Your task to perform on an android device: turn off location Image 0: 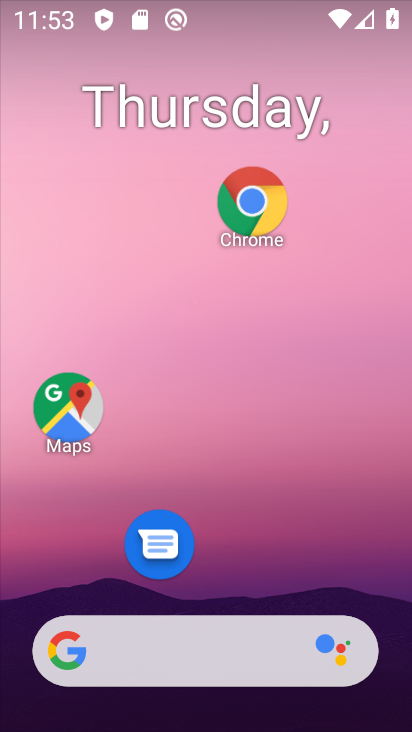
Step 0: drag from (213, 593) to (308, 26)
Your task to perform on an android device: turn off location Image 1: 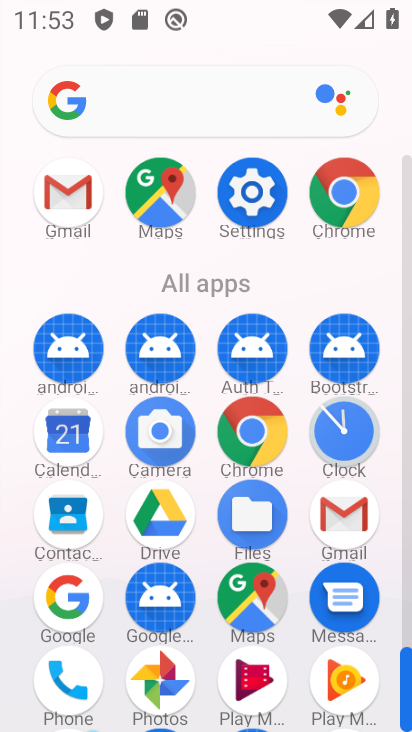
Step 1: click (247, 189)
Your task to perform on an android device: turn off location Image 2: 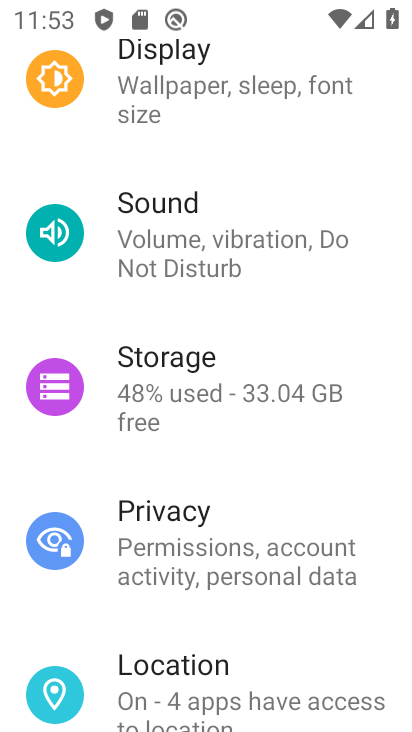
Step 2: drag from (218, 253) to (185, 128)
Your task to perform on an android device: turn off location Image 3: 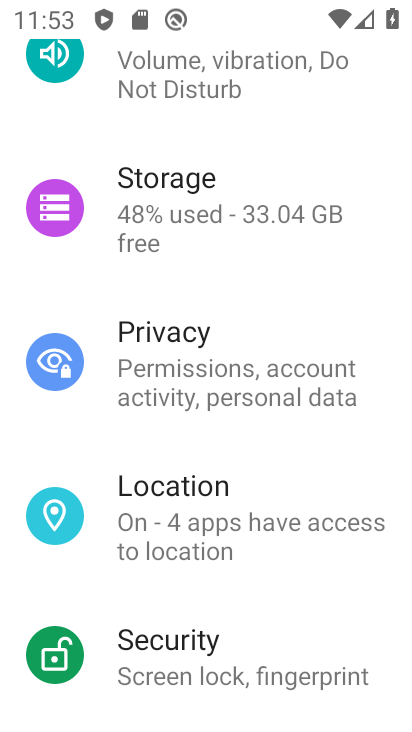
Step 3: click (140, 507)
Your task to perform on an android device: turn off location Image 4: 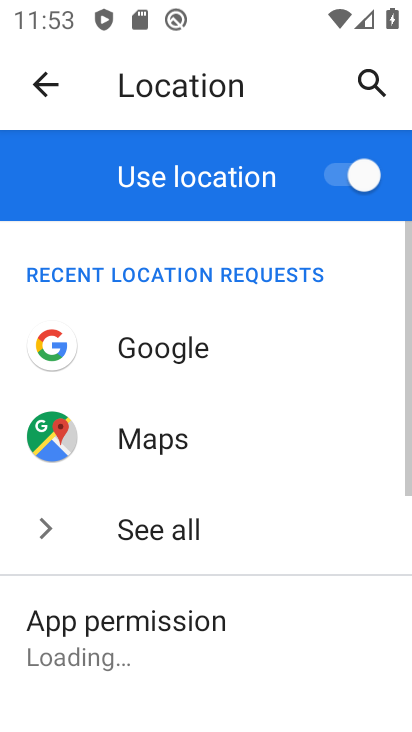
Step 4: click (335, 159)
Your task to perform on an android device: turn off location Image 5: 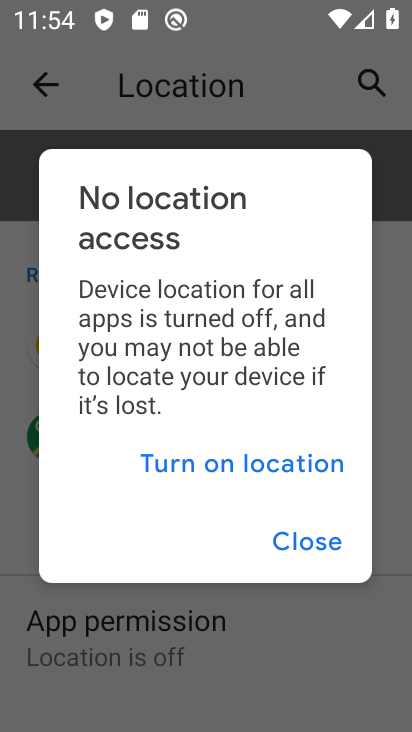
Step 5: task complete